Your task to perform on an android device: open sync settings in chrome Image 0: 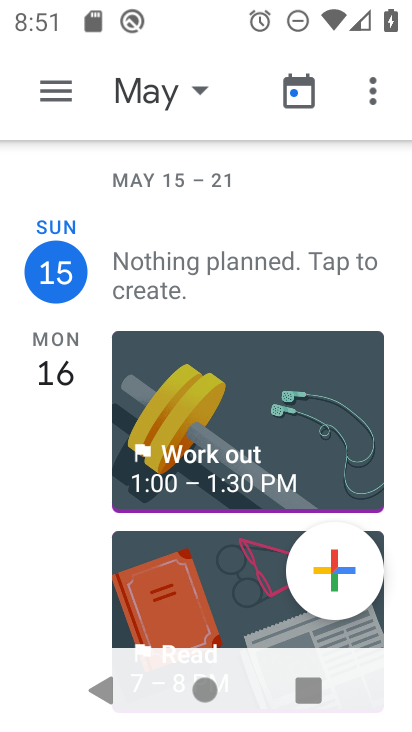
Step 0: press home button
Your task to perform on an android device: open sync settings in chrome Image 1: 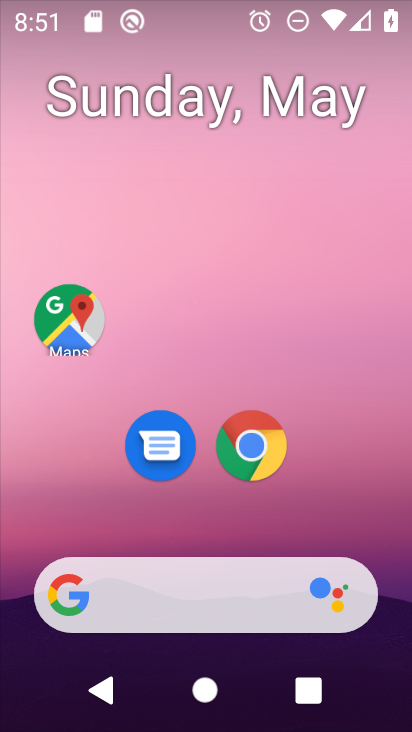
Step 1: drag from (277, 627) to (336, 103)
Your task to perform on an android device: open sync settings in chrome Image 2: 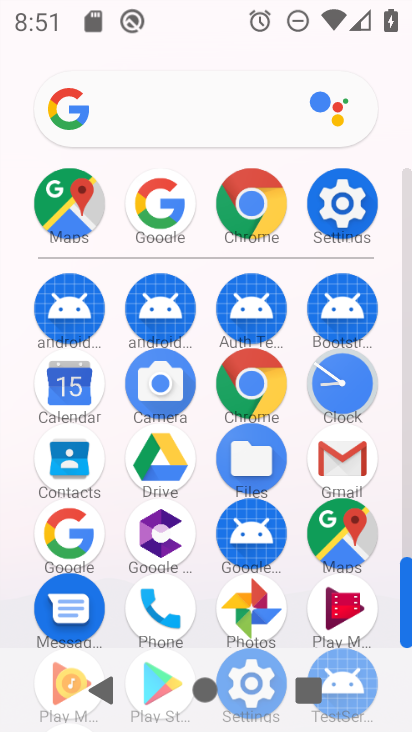
Step 2: click (253, 210)
Your task to perform on an android device: open sync settings in chrome Image 3: 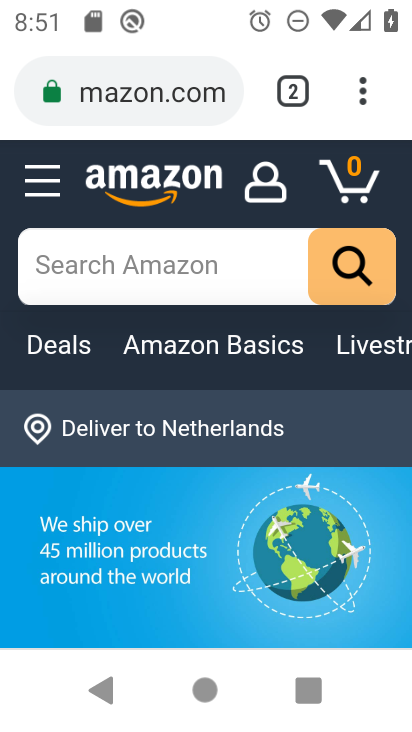
Step 3: click (353, 106)
Your task to perform on an android device: open sync settings in chrome Image 4: 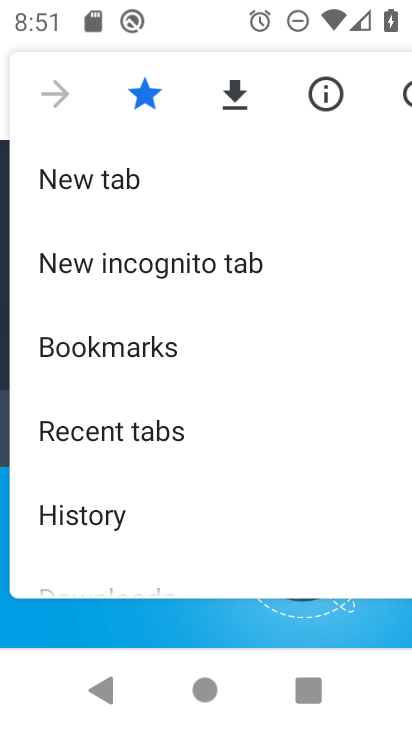
Step 4: drag from (186, 486) to (222, 167)
Your task to perform on an android device: open sync settings in chrome Image 5: 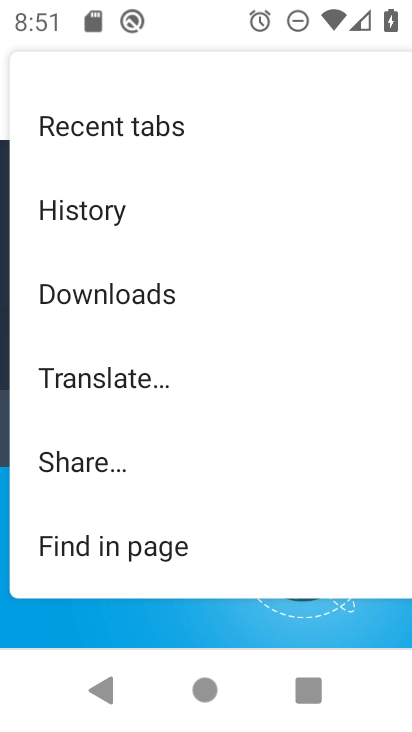
Step 5: drag from (176, 422) to (241, 145)
Your task to perform on an android device: open sync settings in chrome Image 6: 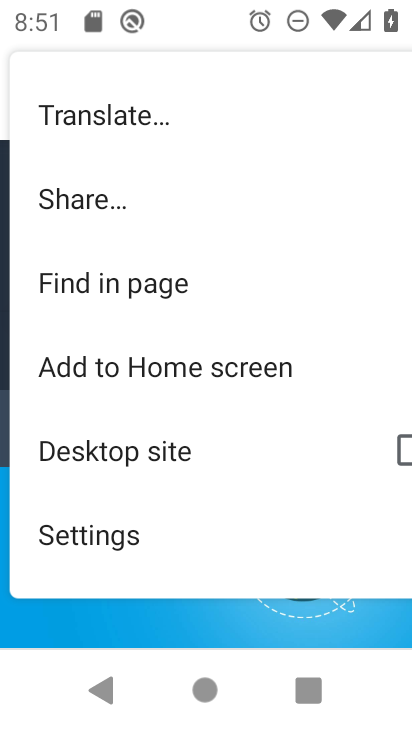
Step 6: click (151, 530)
Your task to perform on an android device: open sync settings in chrome Image 7: 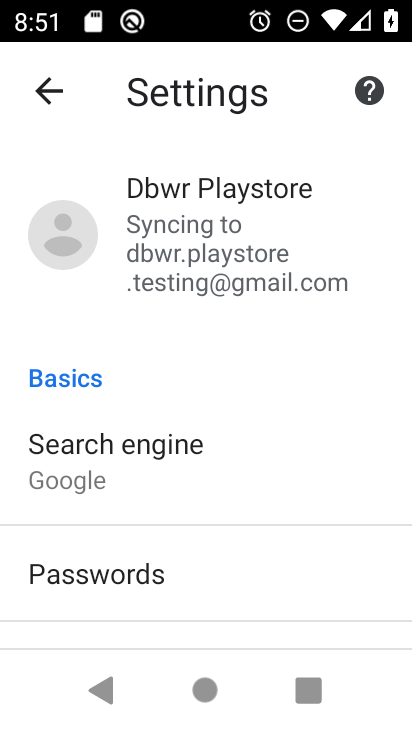
Step 7: drag from (153, 543) to (214, 202)
Your task to perform on an android device: open sync settings in chrome Image 8: 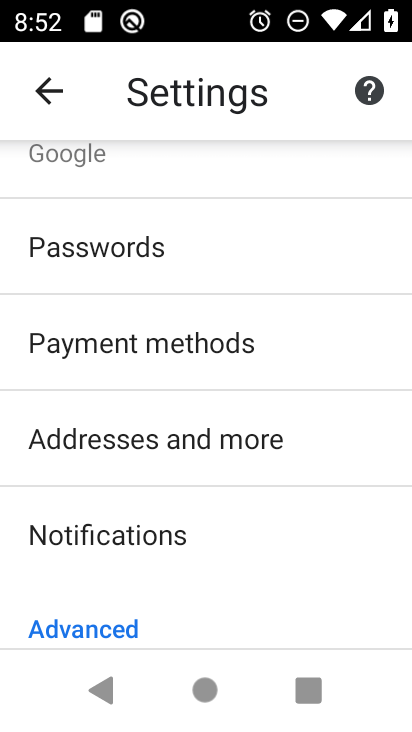
Step 8: drag from (211, 531) to (277, 113)
Your task to perform on an android device: open sync settings in chrome Image 9: 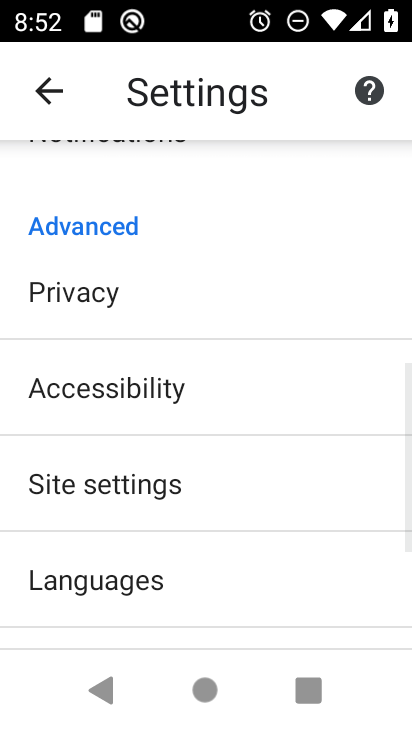
Step 9: drag from (257, 315) to (218, 706)
Your task to perform on an android device: open sync settings in chrome Image 10: 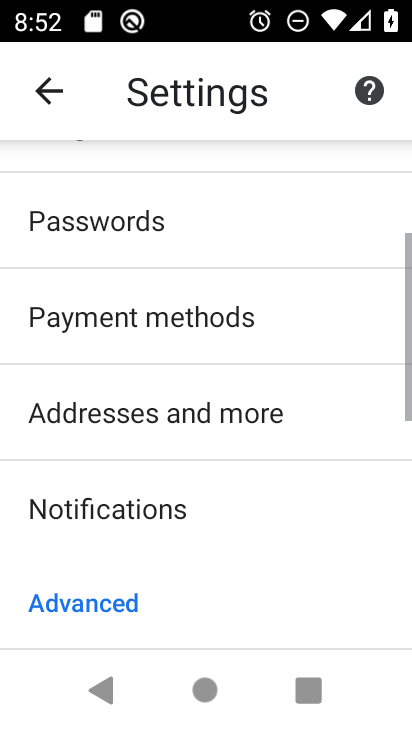
Step 10: drag from (281, 354) to (179, 723)
Your task to perform on an android device: open sync settings in chrome Image 11: 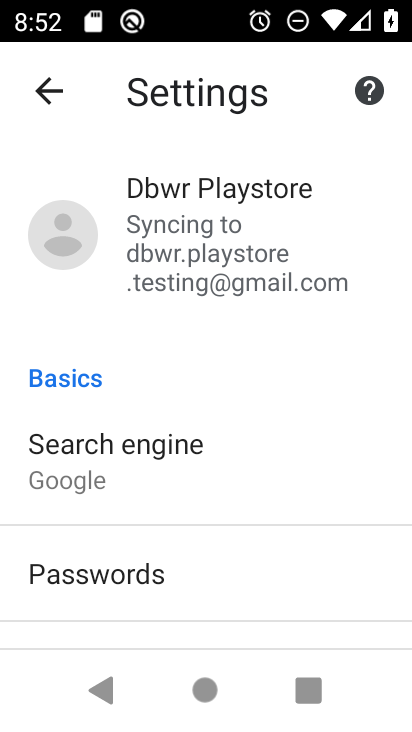
Step 11: click (272, 214)
Your task to perform on an android device: open sync settings in chrome Image 12: 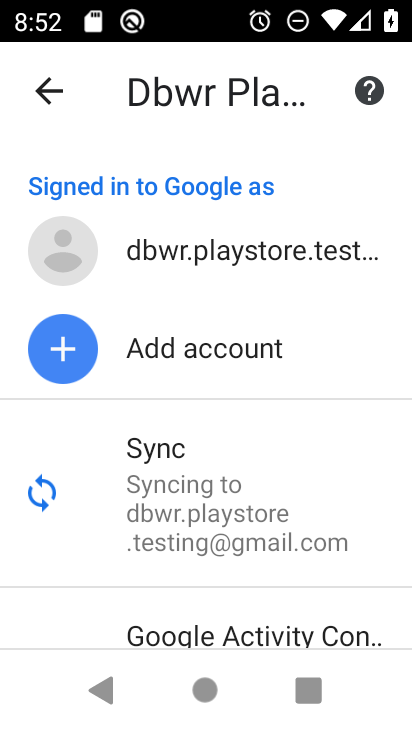
Step 12: click (280, 535)
Your task to perform on an android device: open sync settings in chrome Image 13: 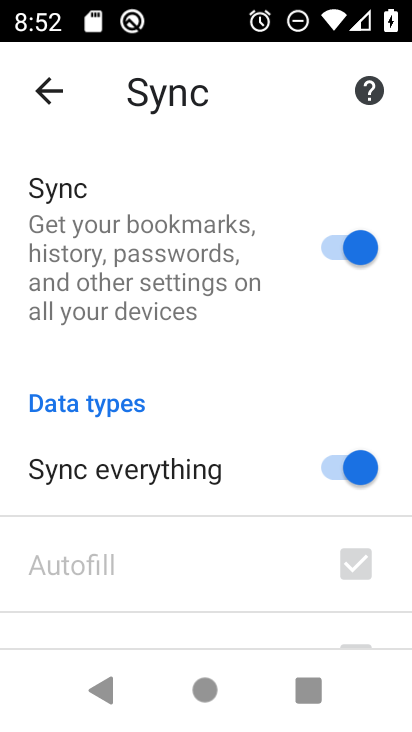
Step 13: task complete